Your task to perform on an android device: open wifi settings Image 0: 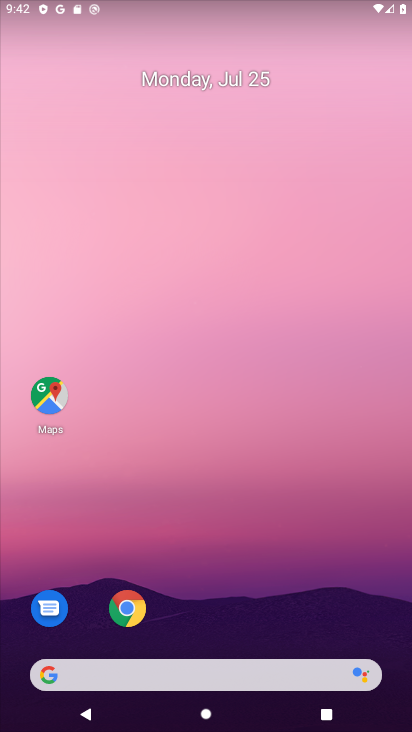
Step 0: drag from (172, 611) to (245, 187)
Your task to perform on an android device: open wifi settings Image 1: 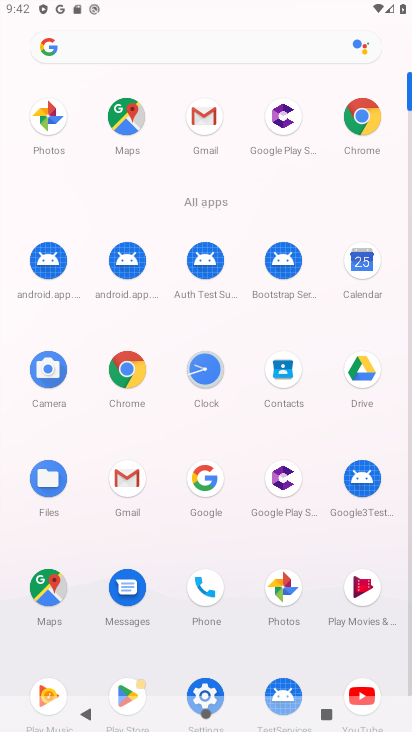
Step 1: click (209, 687)
Your task to perform on an android device: open wifi settings Image 2: 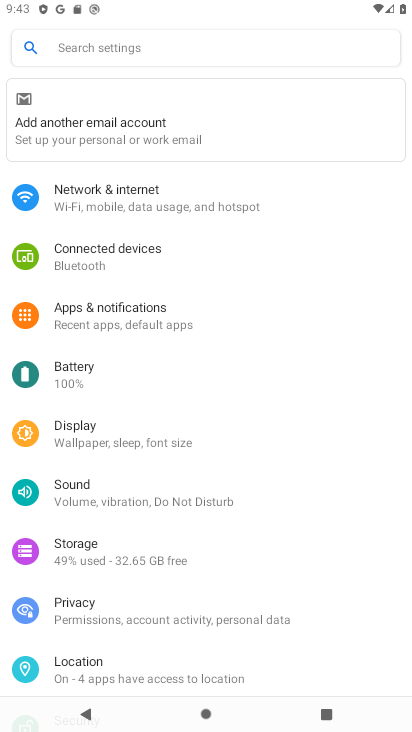
Step 2: click (182, 210)
Your task to perform on an android device: open wifi settings Image 3: 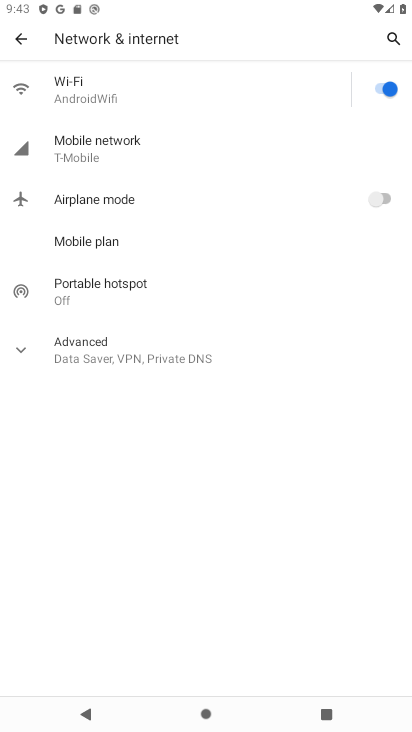
Step 3: click (181, 93)
Your task to perform on an android device: open wifi settings Image 4: 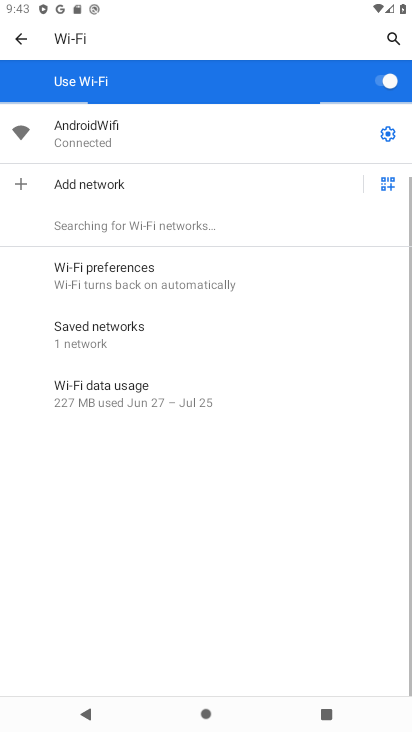
Step 4: task complete